Your task to perform on an android device: turn on location history Image 0: 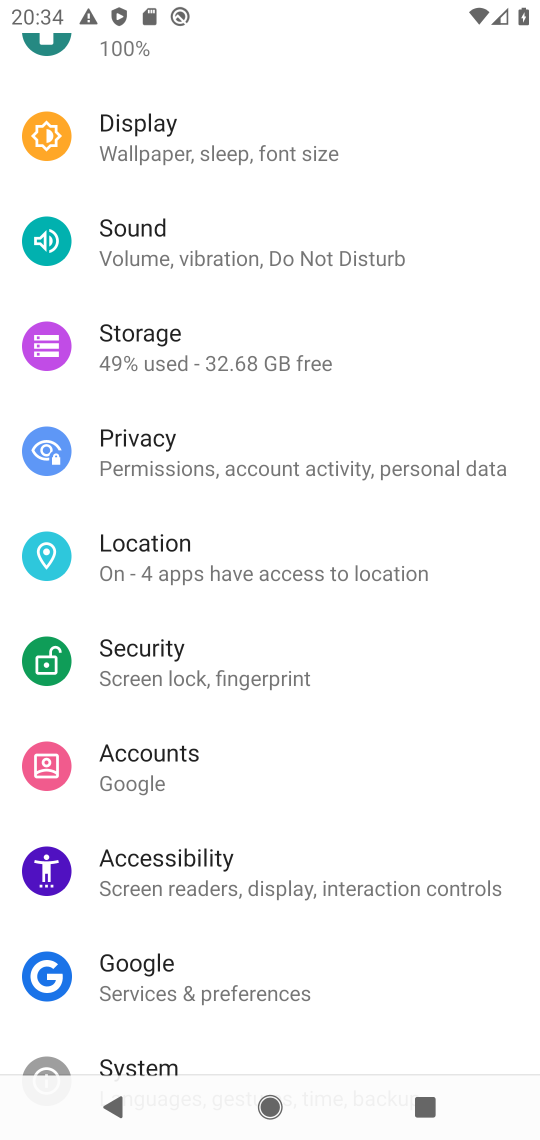
Step 0: click (195, 546)
Your task to perform on an android device: turn on location history Image 1: 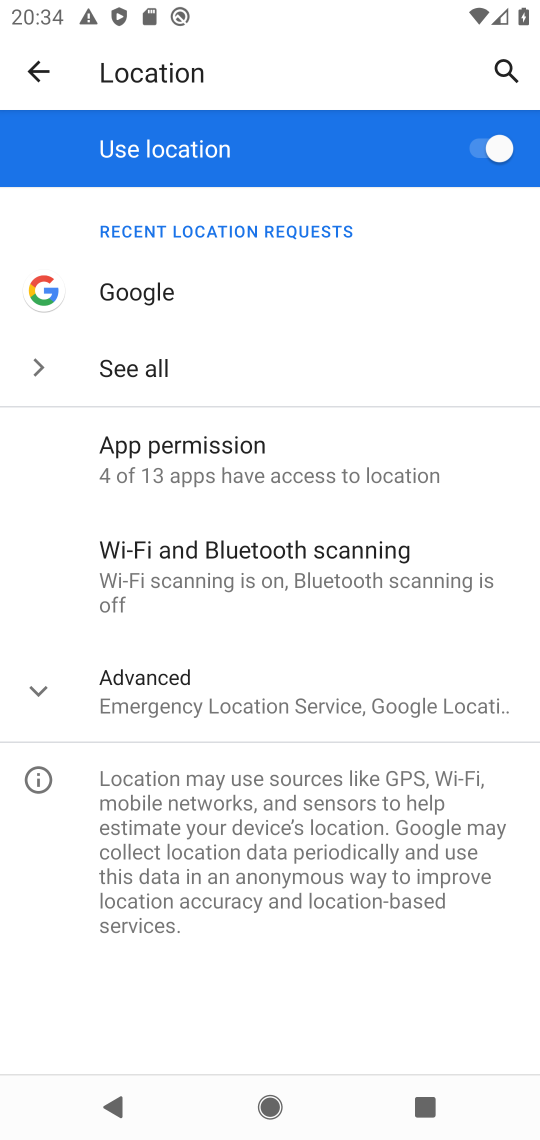
Step 1: click (29, 687)
Your task to perform on an android device: turn on location history Image 2: 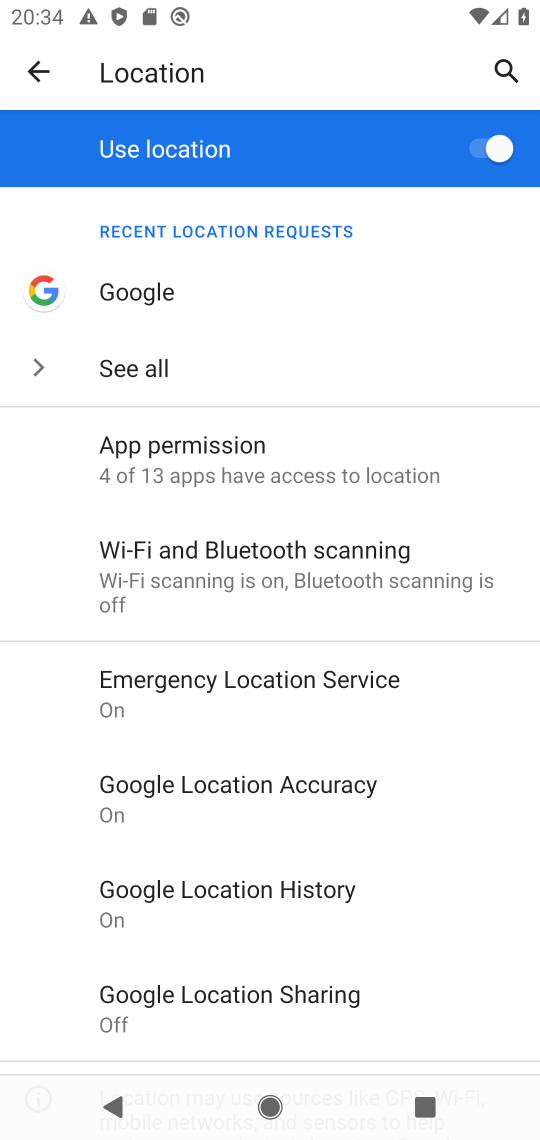
Step 2: click (173, 905)
Your task to perform on an android device: turn on location history Image 3: 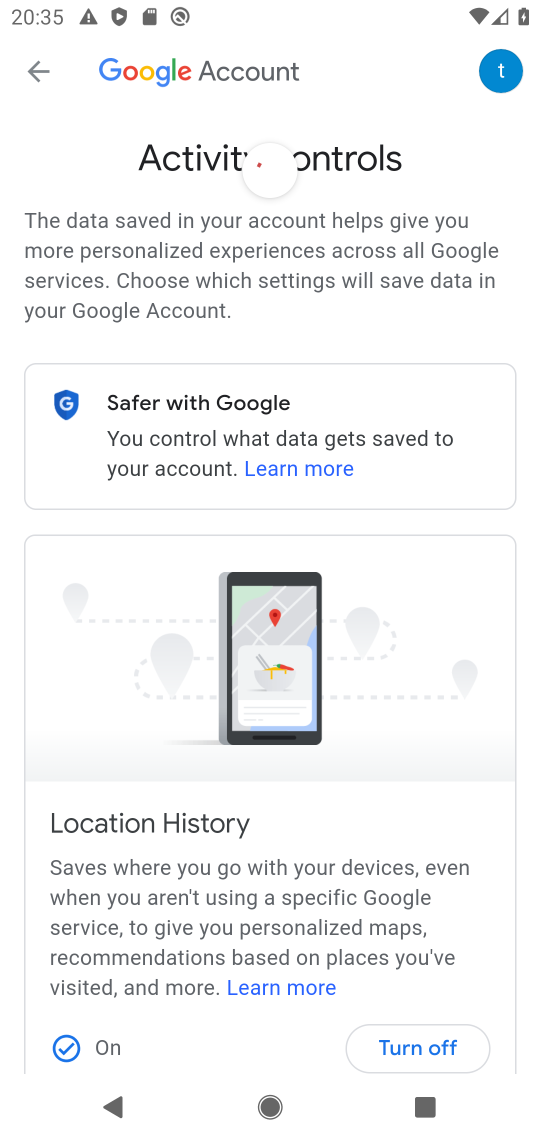
Step 3: task complete